Your task to perform on an android device: Open notification settings Image 0: 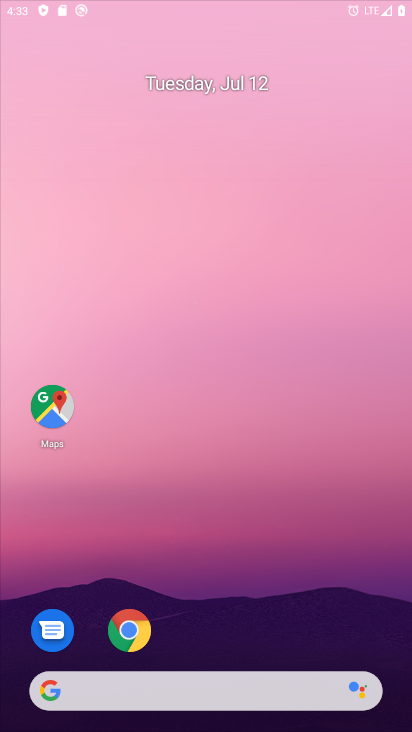
Step 0: click (377, 331)
Your task to perform on an android device: Open notification settings Image 1: 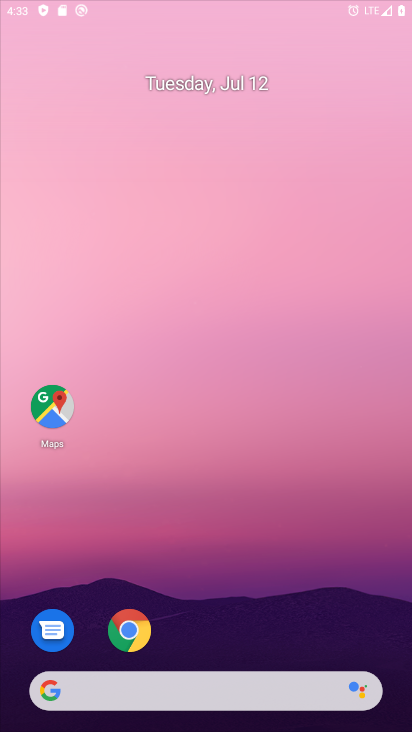
Step 1: drag from (247, 583) to (192, 201)
Your task to perform on an android device: Open notification settings Image 2: 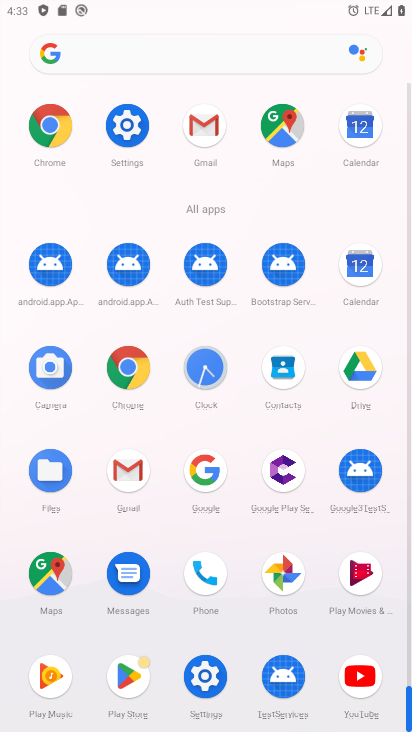
Step 2: click (206, 672)
Your task to perform on an android device: Open notification settings Image 3: 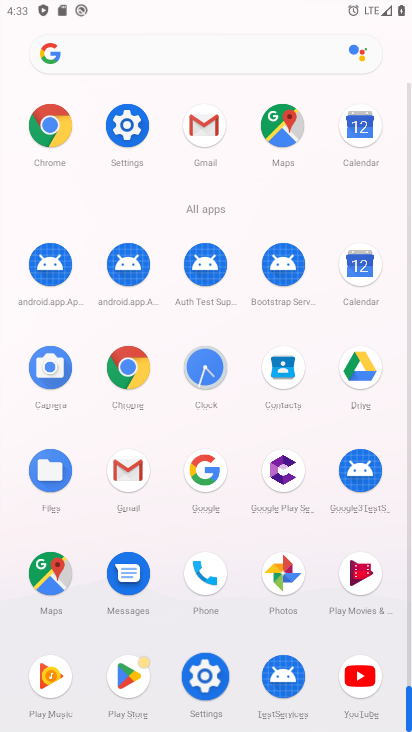
Step 3: click (206, 672)
Your task to perform on an android device: Open notification settings Image 4: 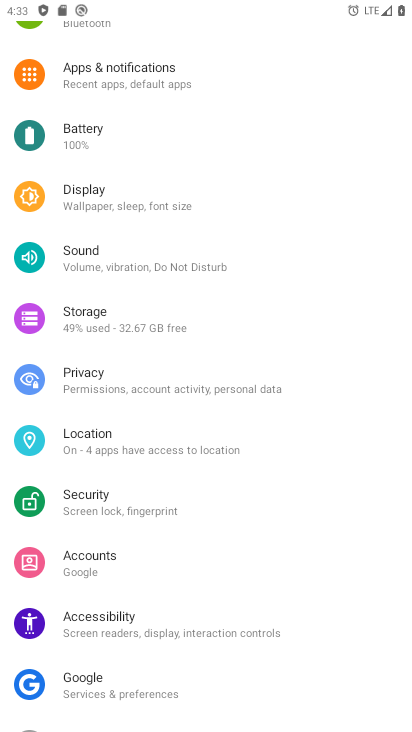
Step 4: drag from (103, 578) to (119, 72)
Your task to perform on an android device: Open notification settings Image 5: 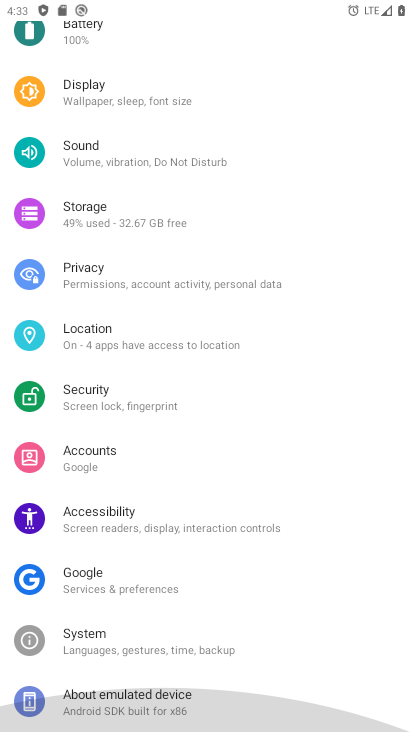
Step 5: drag from (118, 137) to (117, 465)
Your task to perform on an android device: Open notification settings Image 6: 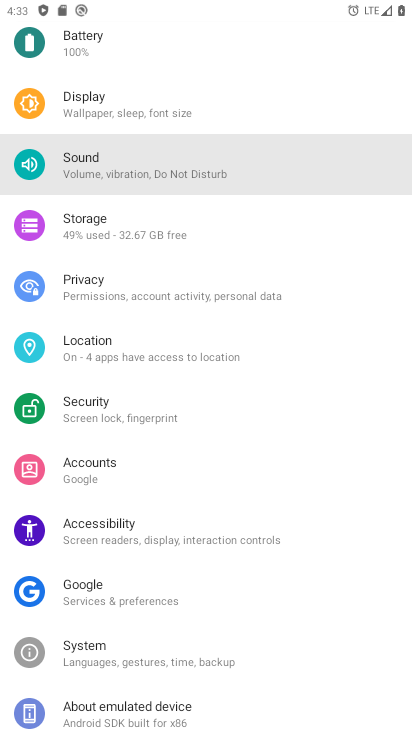
Step 6: drag from (90, 207) to (103, 591)
Your task to perform on an android device: Open notification settings Image 7: 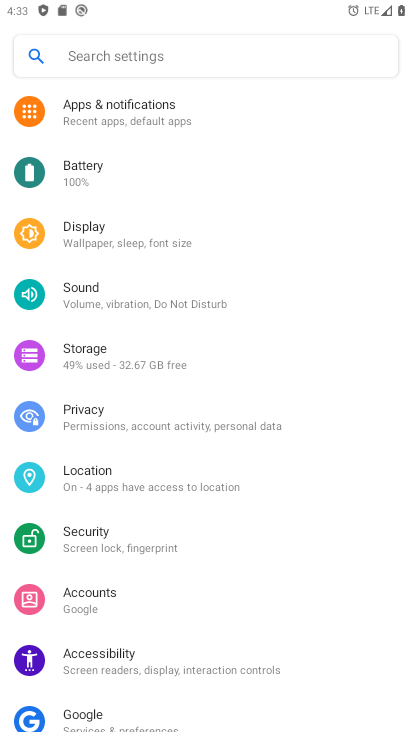
Step 7: click (113, 109)
Your task to perform on an android device: Open notification settings Image 8: 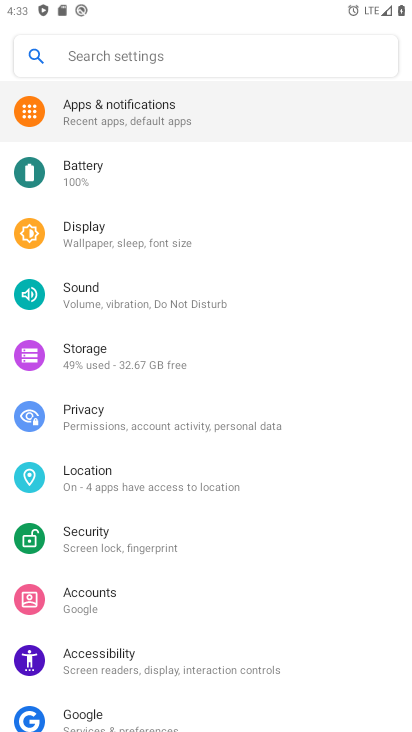
Step 8: click (113, 109)
Your task to perform on an android device: Open notification settings Image 9: 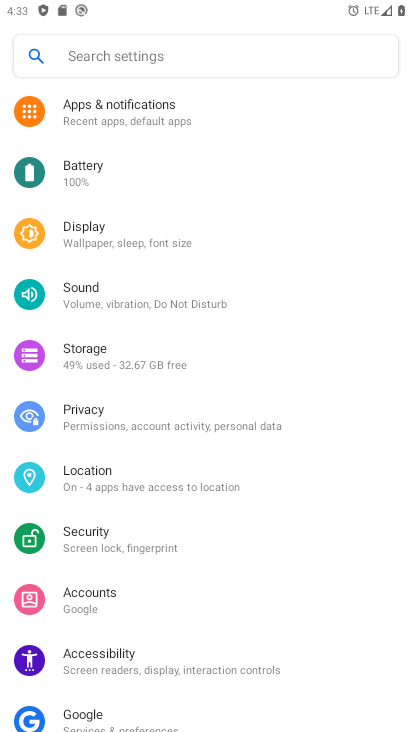
Step 9: click (116, 109)
Your task to perform on an android device: Open notification settings Image 10: 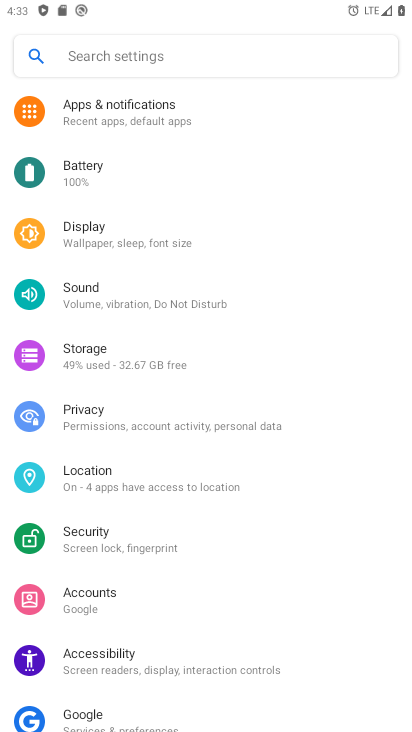
Step 10: click (120, 112)
Your task to perform on an android device: Open notification settings Image 11: 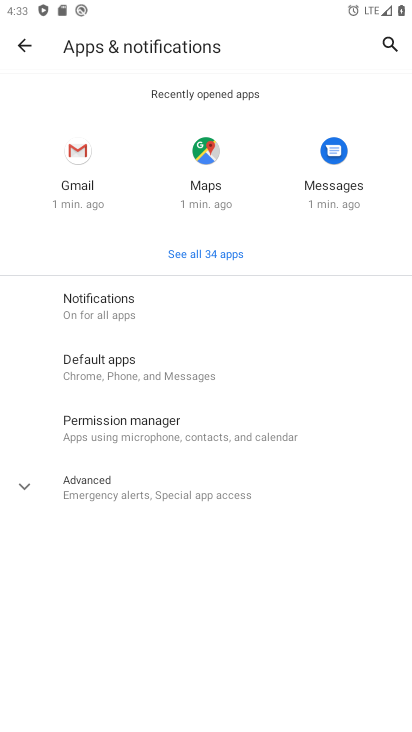
Step 11: click (92, 307)
Your task to perform on an android device: Open notification settings Image 12: 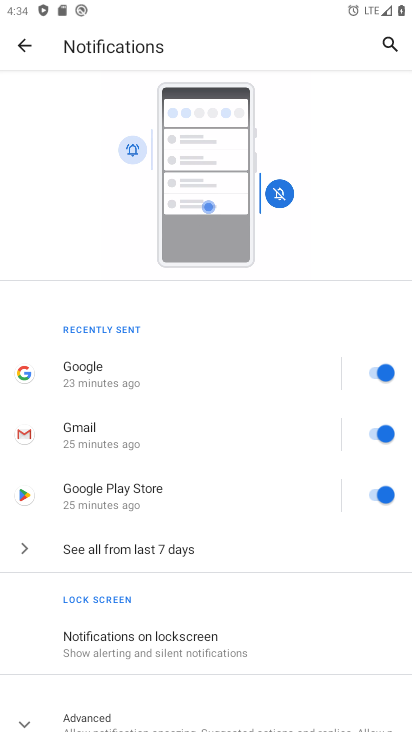
Step 12: click (109, 639)
Your task to perform on an android device: Open notification settings Image 13: 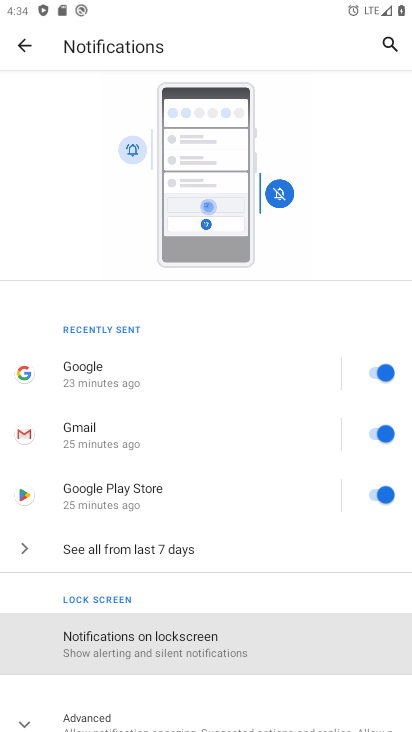
Step 13: click (108, 640)
Your task to perform on an android device: Open notification settings Image 14: 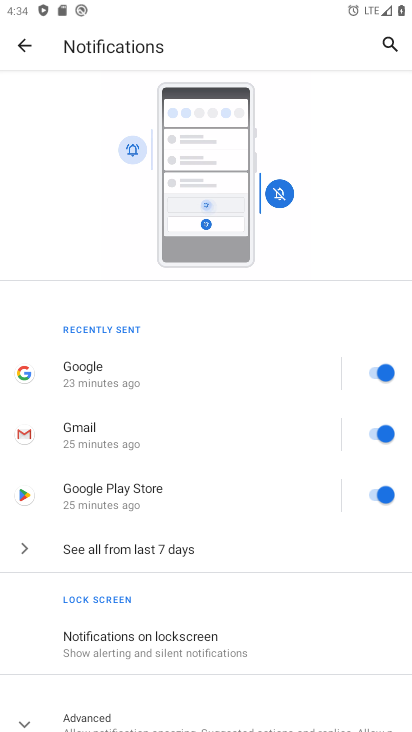
Step 14: click (108, 640)
Your task to perform on an android device: Open notification settings Image 15: 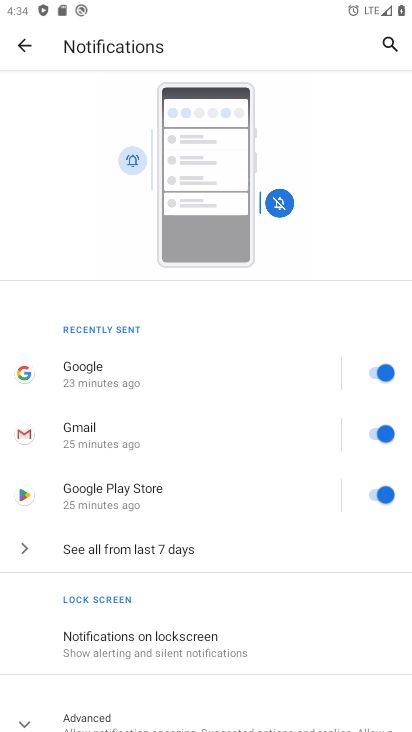
Step 15: drag from (109, 668) to (102, 427)
Your task to perform on an android device: Open notification settings Image 16: 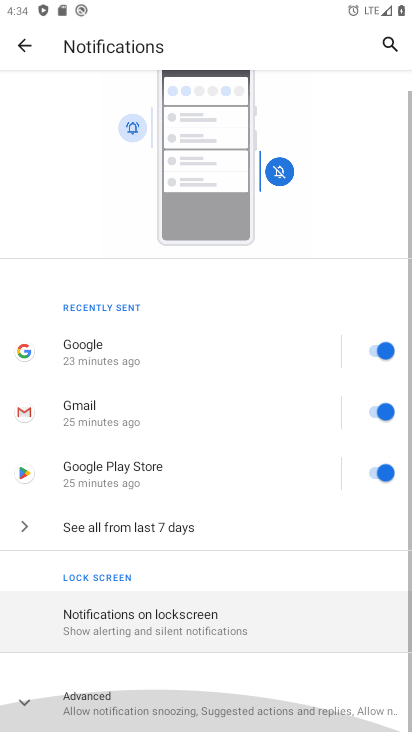
Step 16: drag from (132, 628) to (137, 356)
Your task to perform on an android device: Open notification settings Image 17: 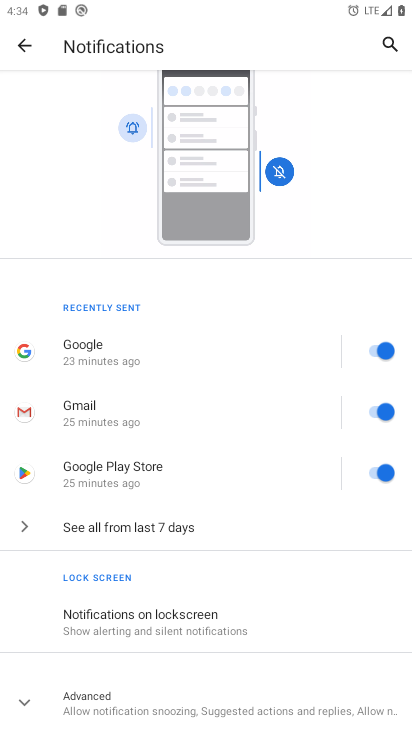
Step 17: click (92, 703)
Your task to perform on an android device: Open notification settings Image 18: 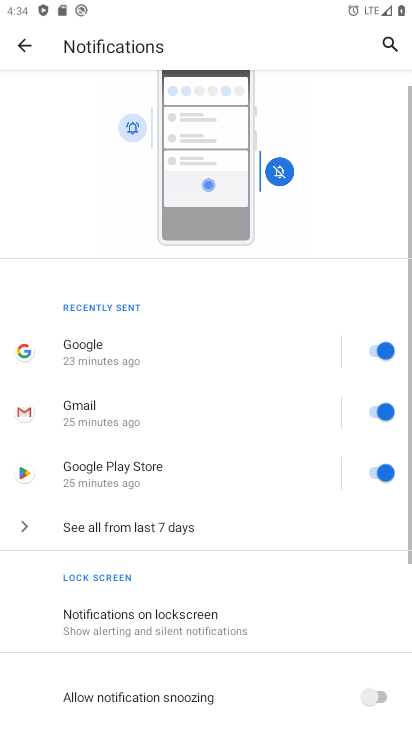
Step 18: task complete